Your task to perform on an android device: Open the calendar app, open the side menu, and click the "Day" option Image 0: 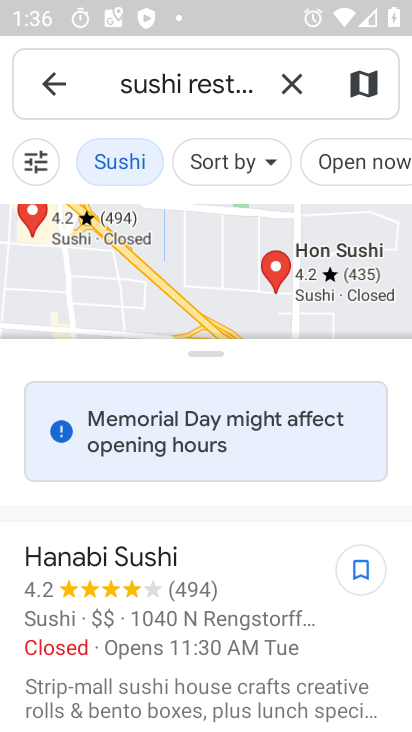
Step 0: press back button
Your task to perform on an android device: Open the calendar app, open the side menu, and click the "Day" option Image 1: 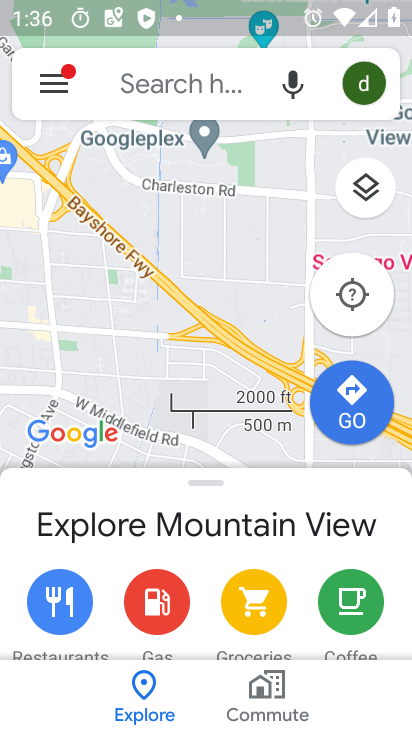
Step 1: press back button
Your task to perform on an android device: Open the calendar app, open the side menu, and click the "Day" option Image 2: 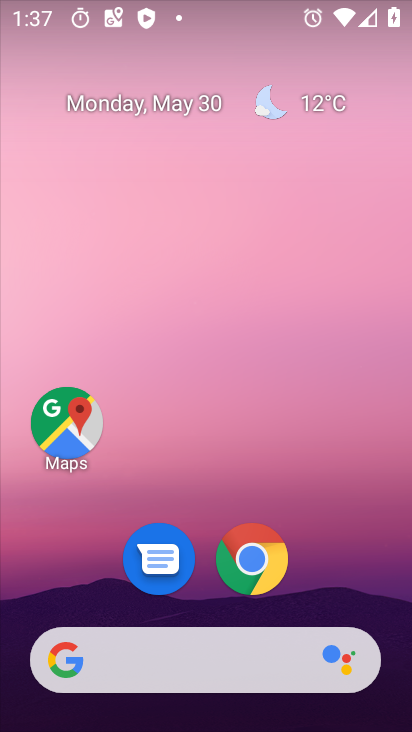
Step 2: drag from (177, 541) to (234, 108)
Your task to perform on an android device: Open the calendar app, open the side menu, and click the "Day" option Image 3: 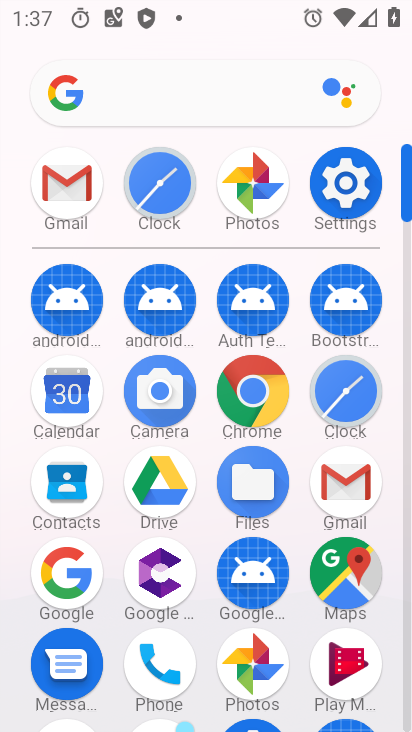
Step 3: click (66, 393)
Your task to perform on an android device: Open the calendar app, open the side menu, and click the "Day" option Image 4: 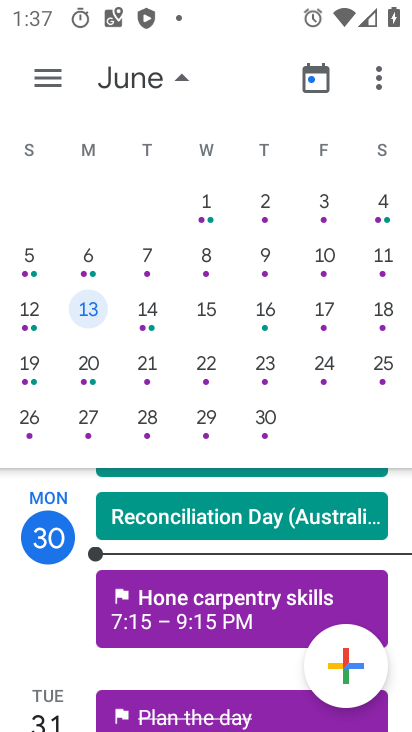
Step 4: click (48, 72)
Your task to perform on an android device: Open the calendar app, open the side menu, and click the "Day" option Image 5: 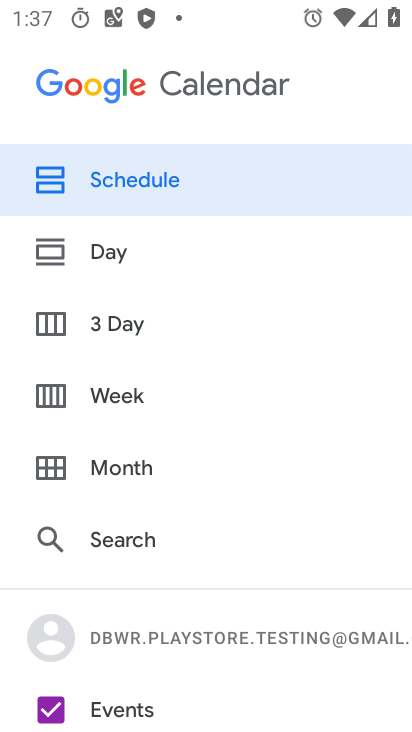
Step 5: click (113, 253)
Your task to perform on an android device: Open the calendar app, open the side menu, and click the "Day" option Image 6: 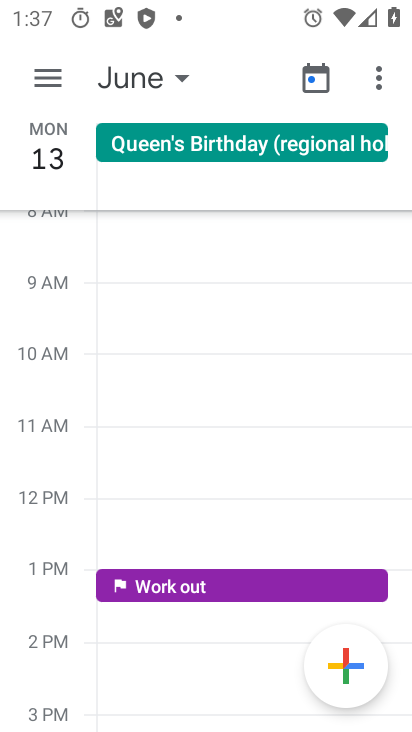
Step 6: task complete